Your task to perform on an android device: allow cookies in the chrome app Image 0: 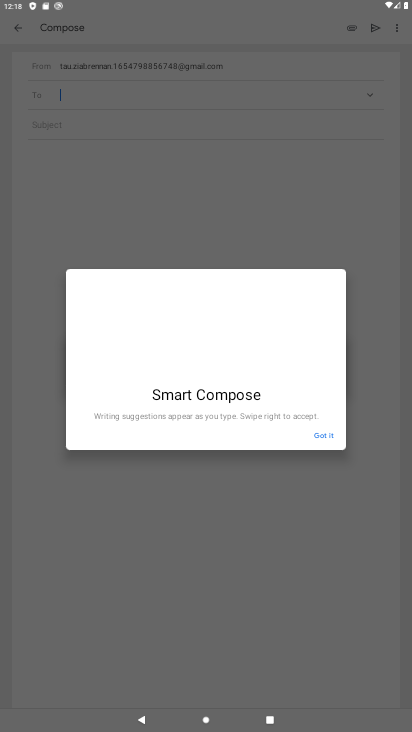
Step 0: press home button
Your task to perform on an android device: allow cookies in the chrome app Image 1: 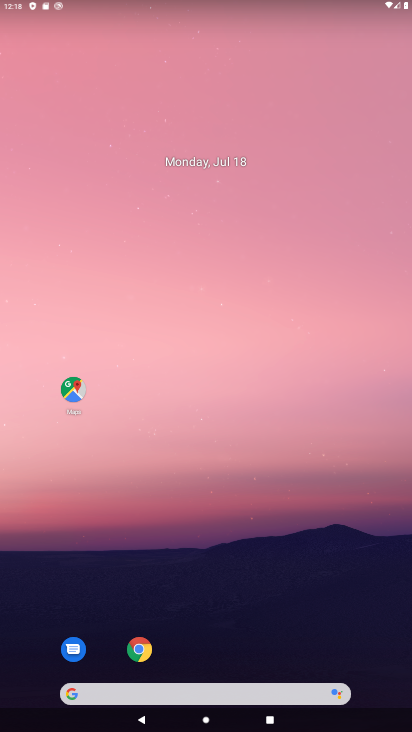
Step 1: drag from (357, 618) to (266, 79)
Your task to perform on an android device: allow cookies in the chrome app Image 2: 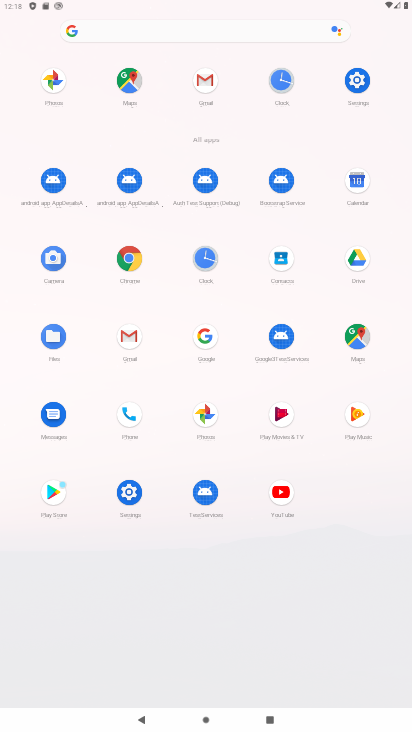
Step 2: click (132, 259)
Your task to perform on an android device: allow cookies in the chrome app Image 3: 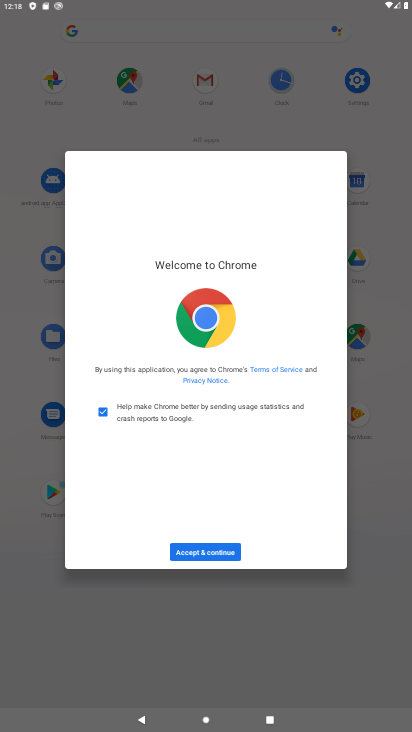
Step 3: click (233, 551)
Your task to perform on an android device: allow cookies in the chrome app Image 4: 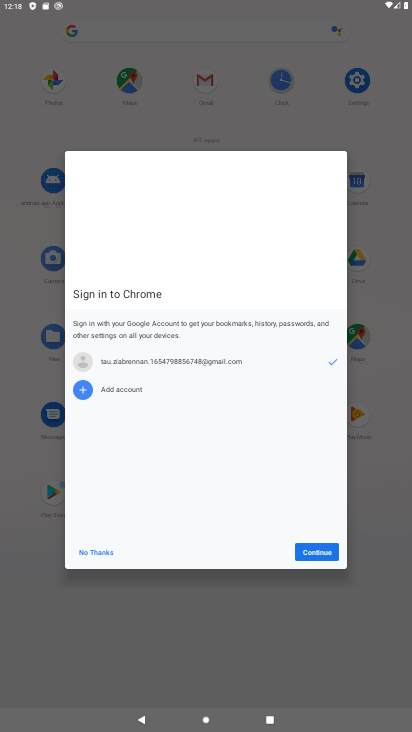
Step 4: click (311, 556)
Your task to perform on an android device: allow cookies in the chrome app Image 5: 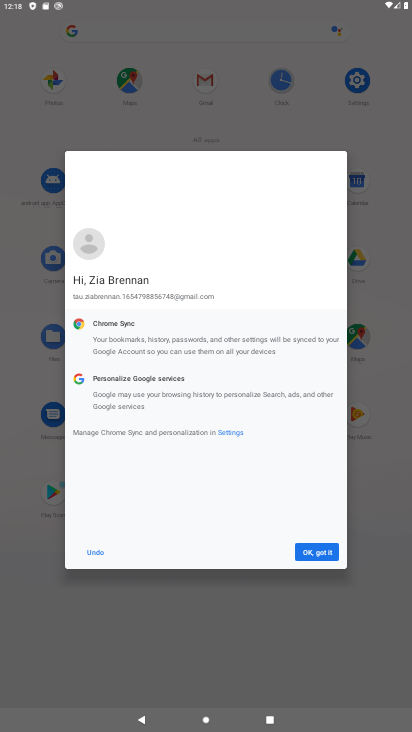
Step 5: click (311, 556)
Your task to perform on an android device: allow cookies in the chrome app Image 6: 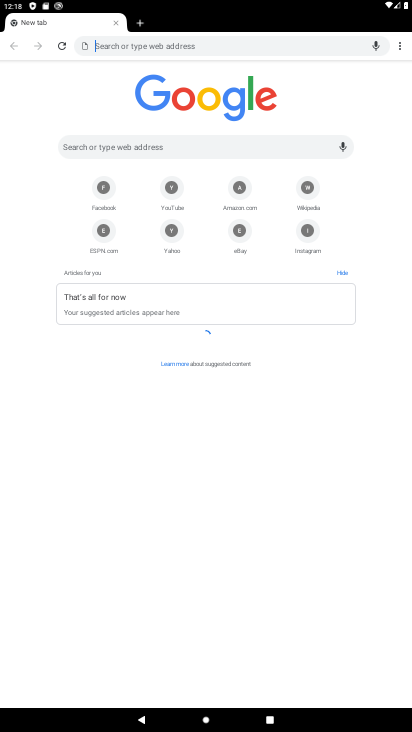
Step 6: click (404, 52)
Your task to perform on an android device: allow cookies in the chrome app Image 7: 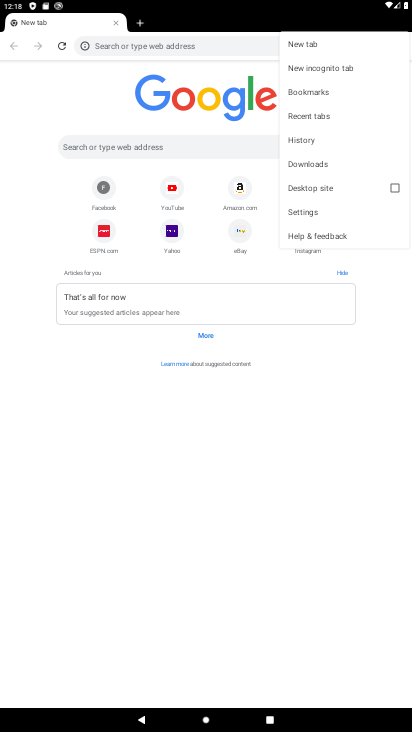
Step 7: click (347, 213)
Your task to perform on an android device: allow cookies in the chrome app Image 8: 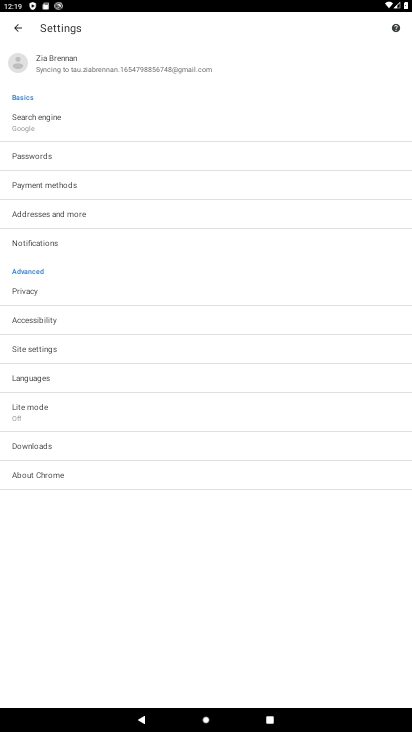
Step 8: click (77, 350)
Your task to perform on an android device: allow cookies in the chrome app Image 9: 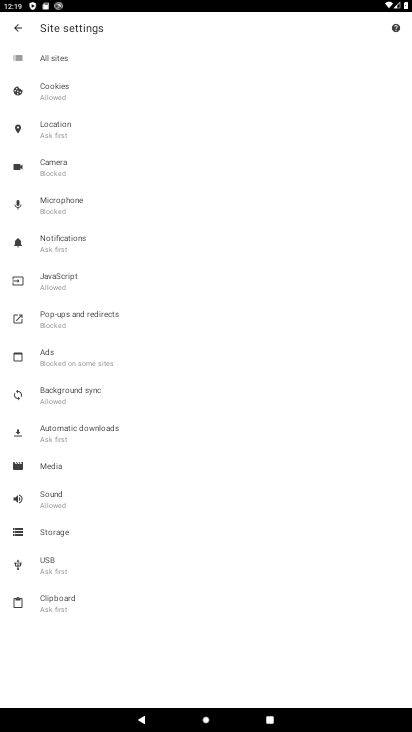
Step 9: click (203, 85)
Your task to perform on an android device: allow cookies in the chrome app Image 10: 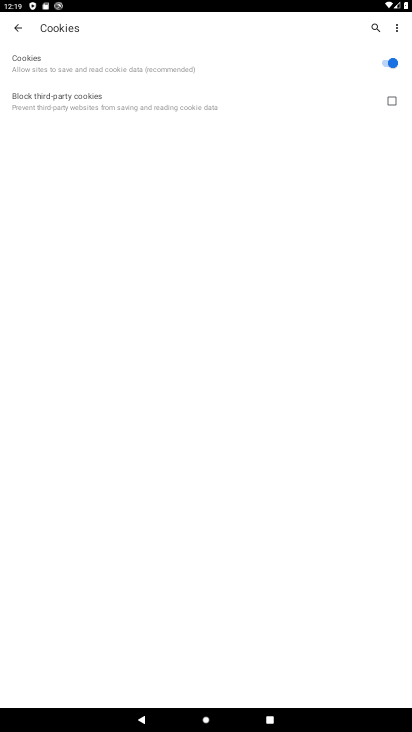
Step 10: task complete